Your task to perform on an android device: Open the calendar app, open the side menu, and click the "Day" option Image 0: 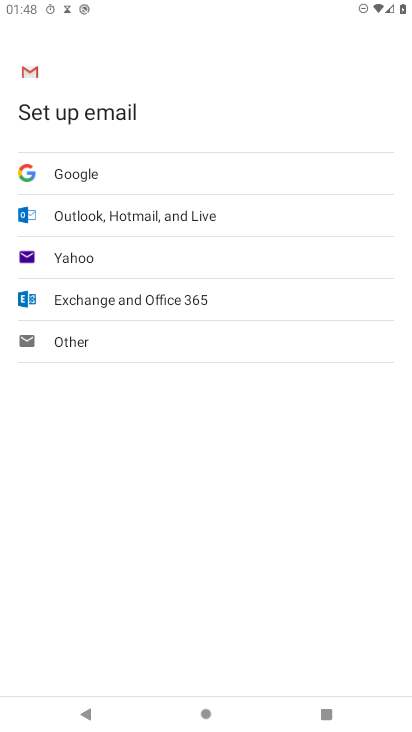
Step 0: press home button
Your task to perform on an android device: Open the calendar app, open the side menu, and click the "Day" option Image 1: 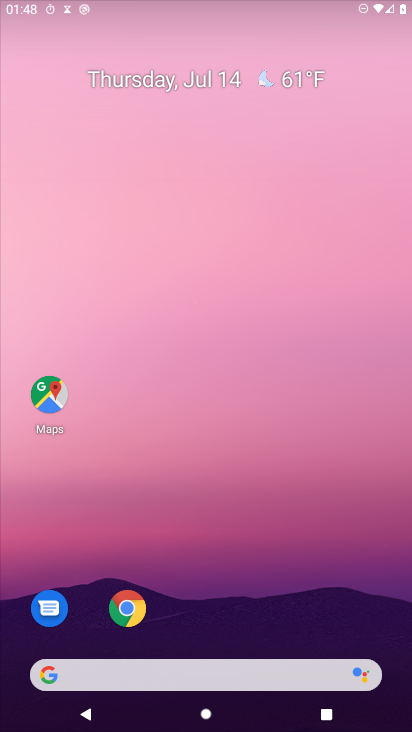
Step 1: drag from (210, 565) to (277, 44)
Your task to perform on an android device: Open the calendar app, open the side menu, and click the "Day" option Image 2: 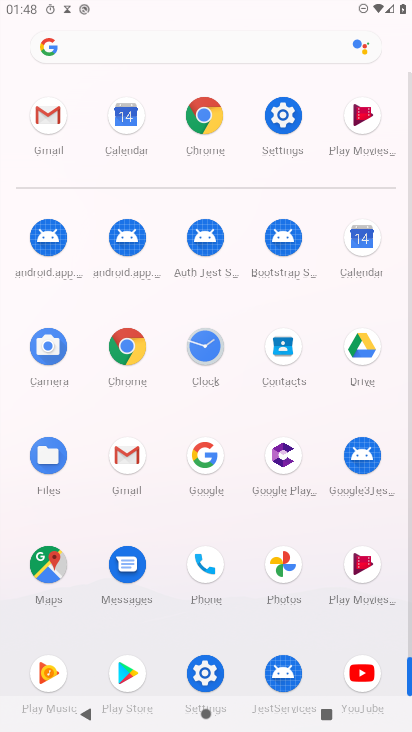
Step 2: click (360, 240)
Your task to perform on an android device: Open the calendar app, open the side menu, and click the "Day" option Image 3: 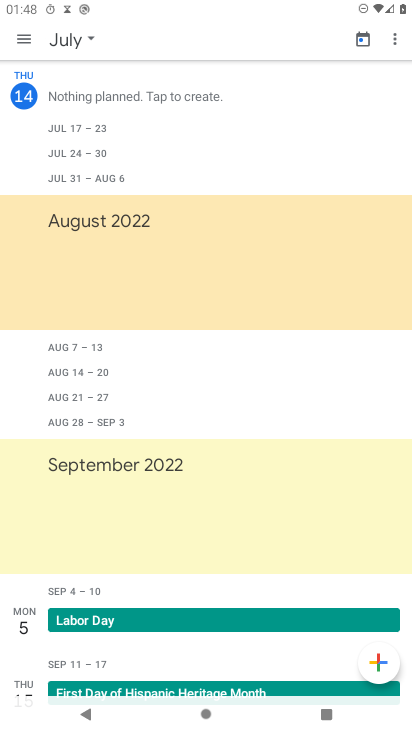
Step 3: click (33, 41)
Your task to perform on an android device: Open the calendar app, open the side menu, and click the "Day" option Image 4: 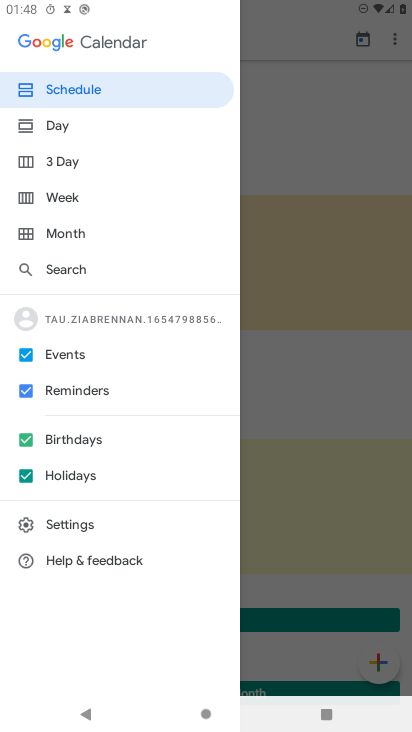
Step 4: click (67, 131)
Your task to perform on an android device: Open the calendar app, open the side menu, and click the "Day" option Image 5: 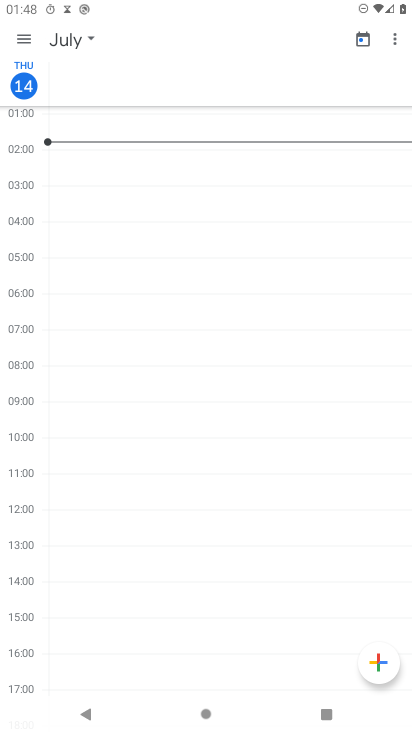
Step 5: task complete